Your task to perform on an android device: Go to privacy settings Image 0: 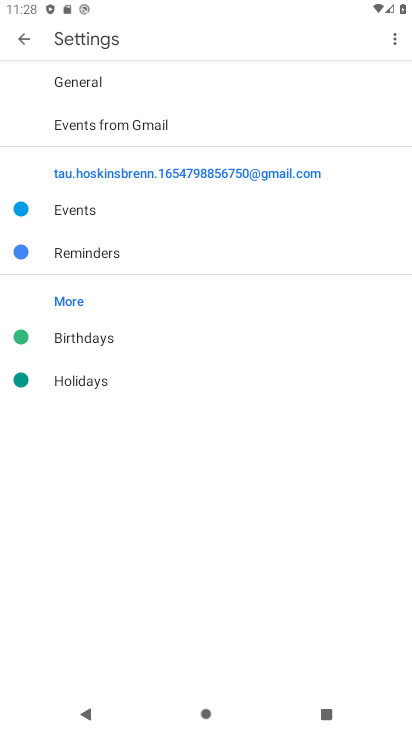
Step 0: press home button
Your task to perform on an android device: Go to privacy settings Image 1: 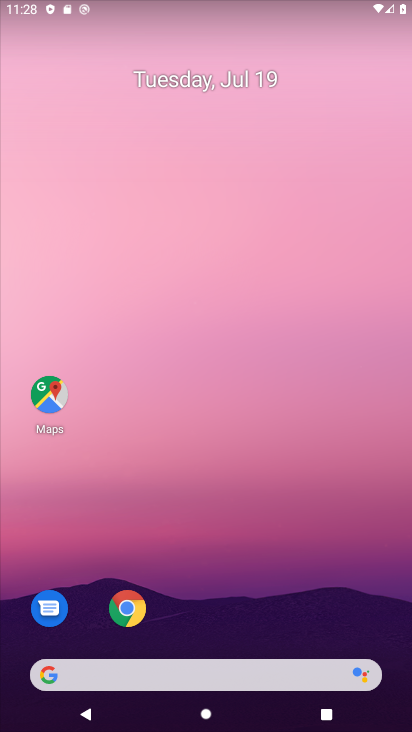
Step 1: click (126, 604)
Your task to perform on an android device: Go to privacy settings Image 2: 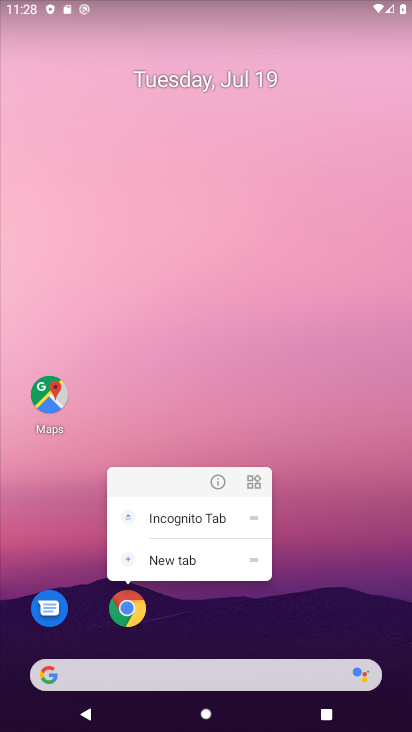
Step 2: click (126, 611)
Your task to perform on an android device: Go to privacy settings Image 3: 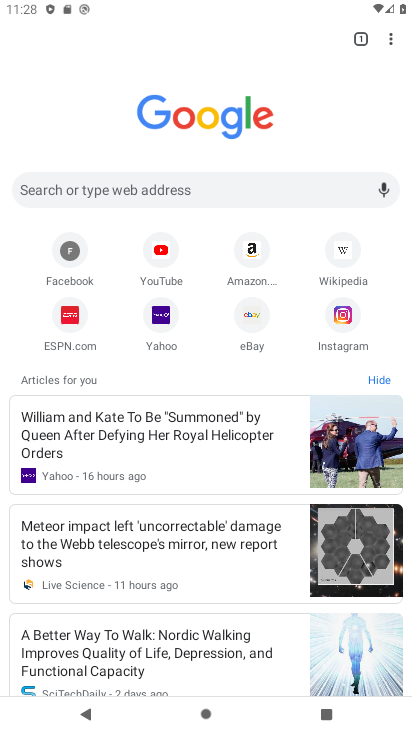
Step 3: click (387, 43)
Your task to perform on an android device: Go to privacy settings Image 4: 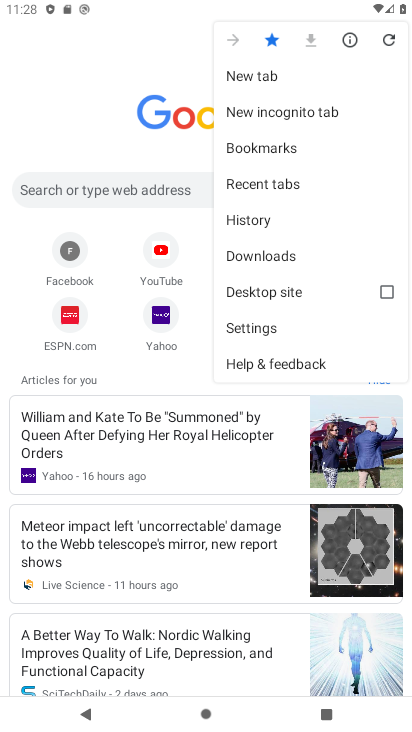
Step 4: click (267, 330)
Your task to perform on an android device: Go to privacy settings Image 5: 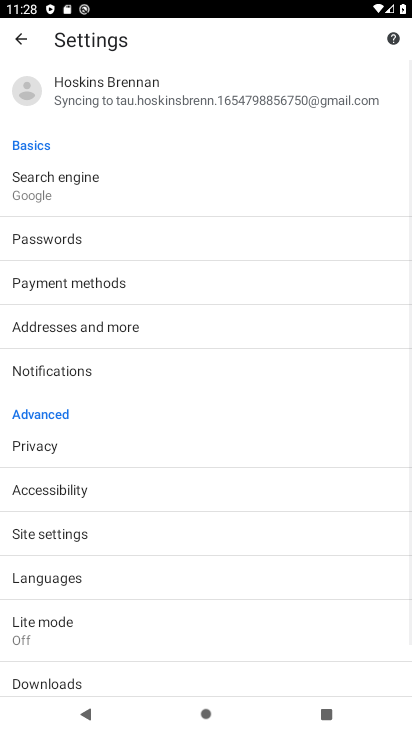
Step 5: click (60, 440)
Your task to perform on an android device: Go to privacy settings Image 6: 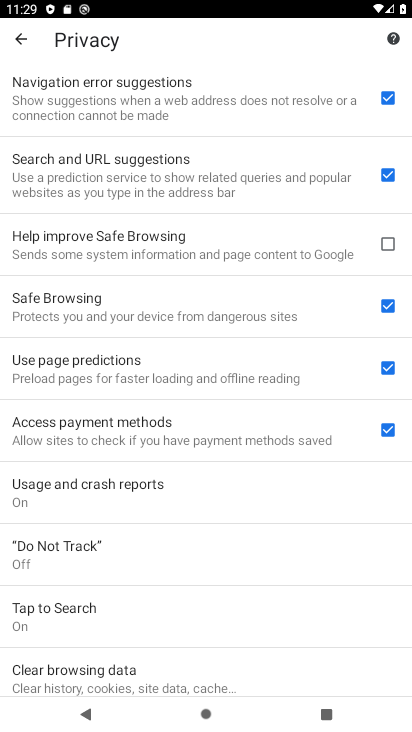
Step 6: task complete